Your task to perform on an android device: uninstall "Google Keep" Image 0: 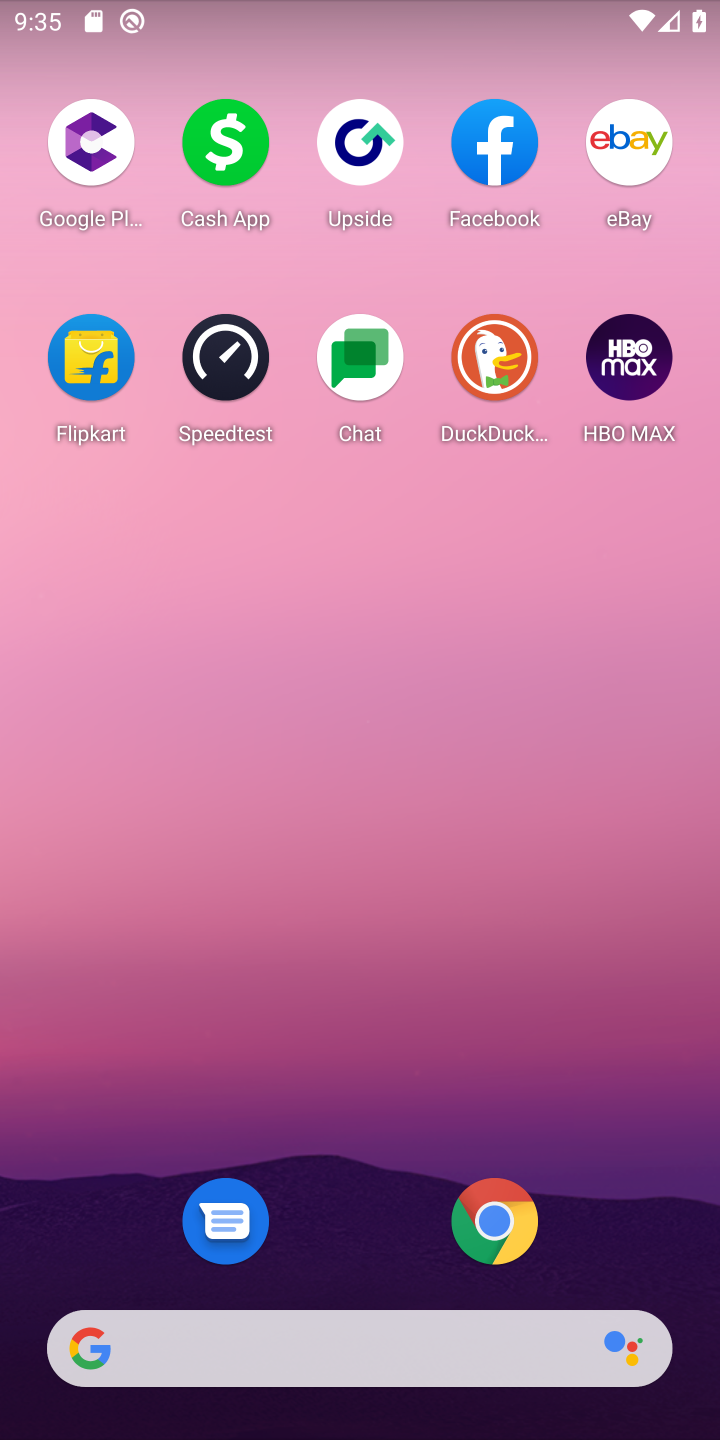
Step 0: drag from (368, 956) to (358, 472)
Your task to perform on an android device: uninstall "Google Keep" Image 1: 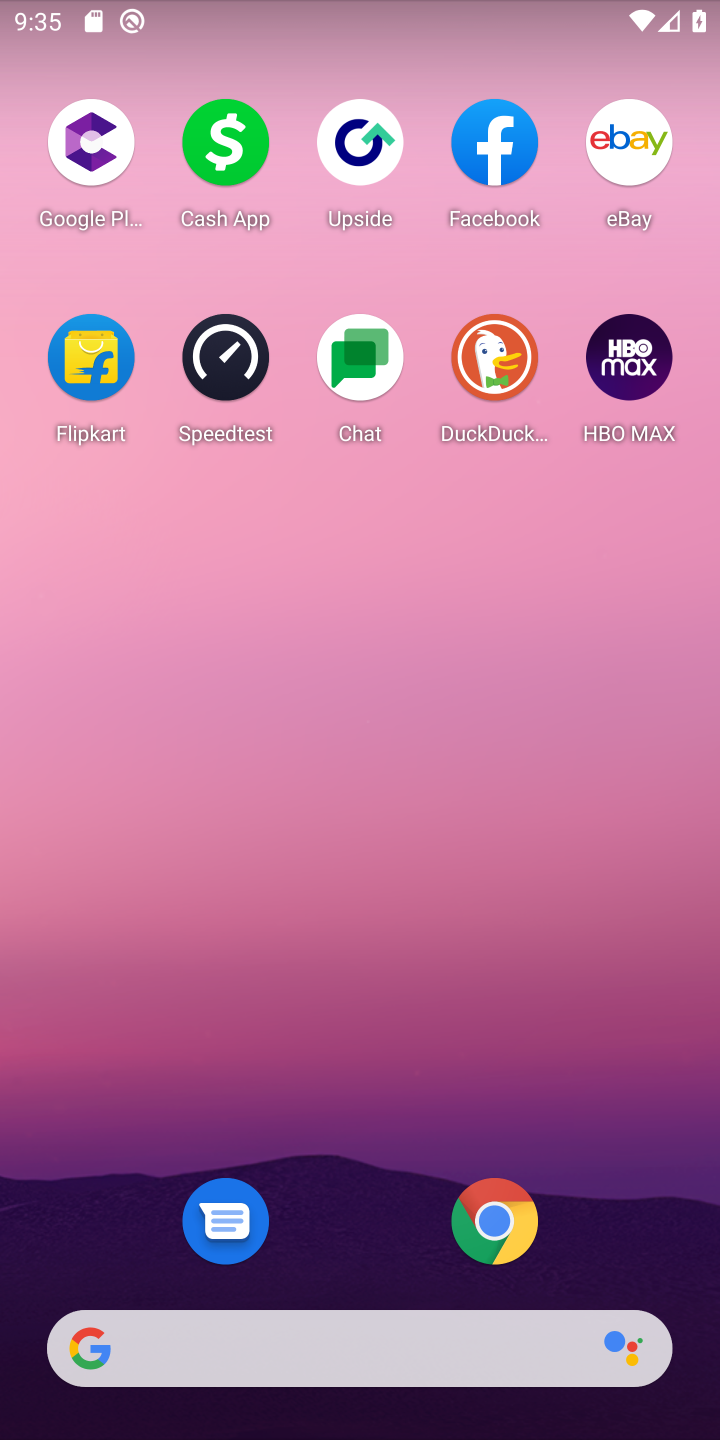
Step 1: drag from (348, 1014) to (350, 11)
Your task to perform on an android device: uninstall "Google Keep" Image 2: 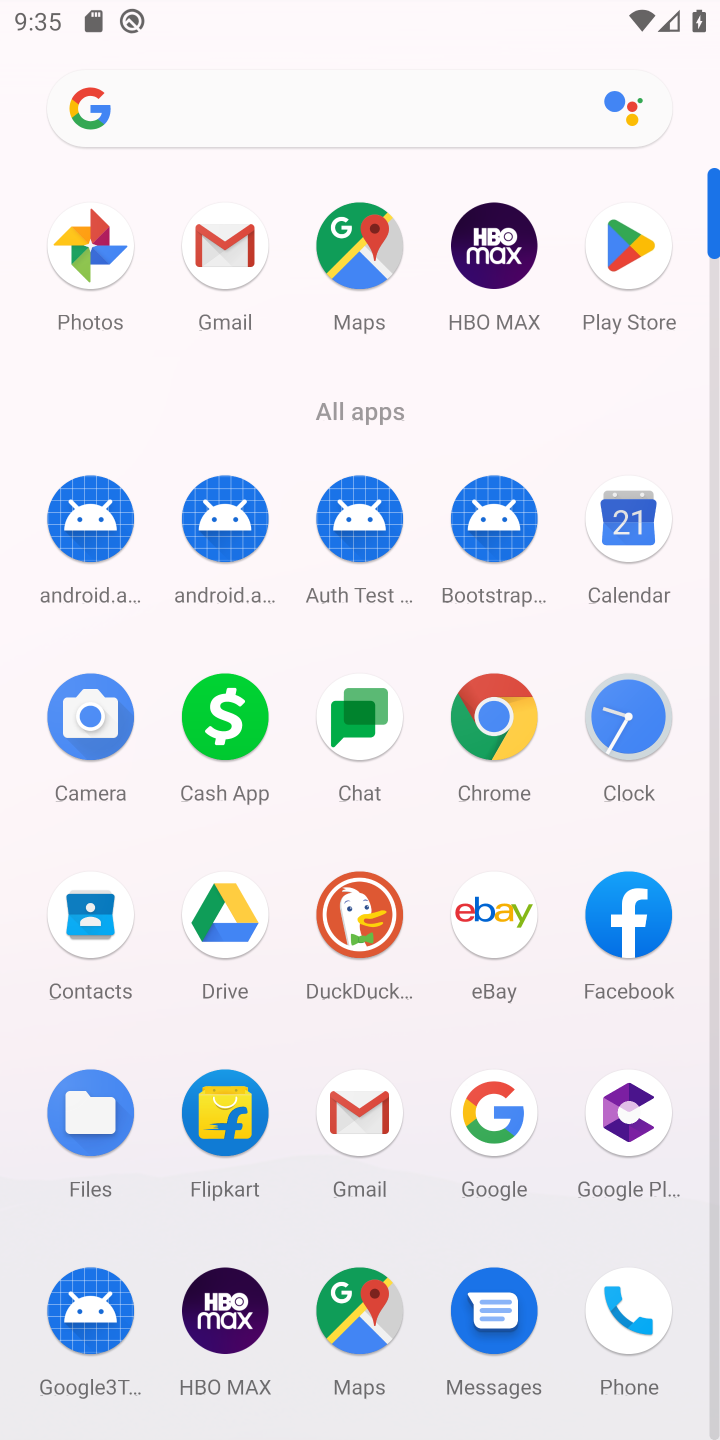
Step 2: click (616, 262)
Your task to perform on an android device: uninstall "Google Keep" Image 3: 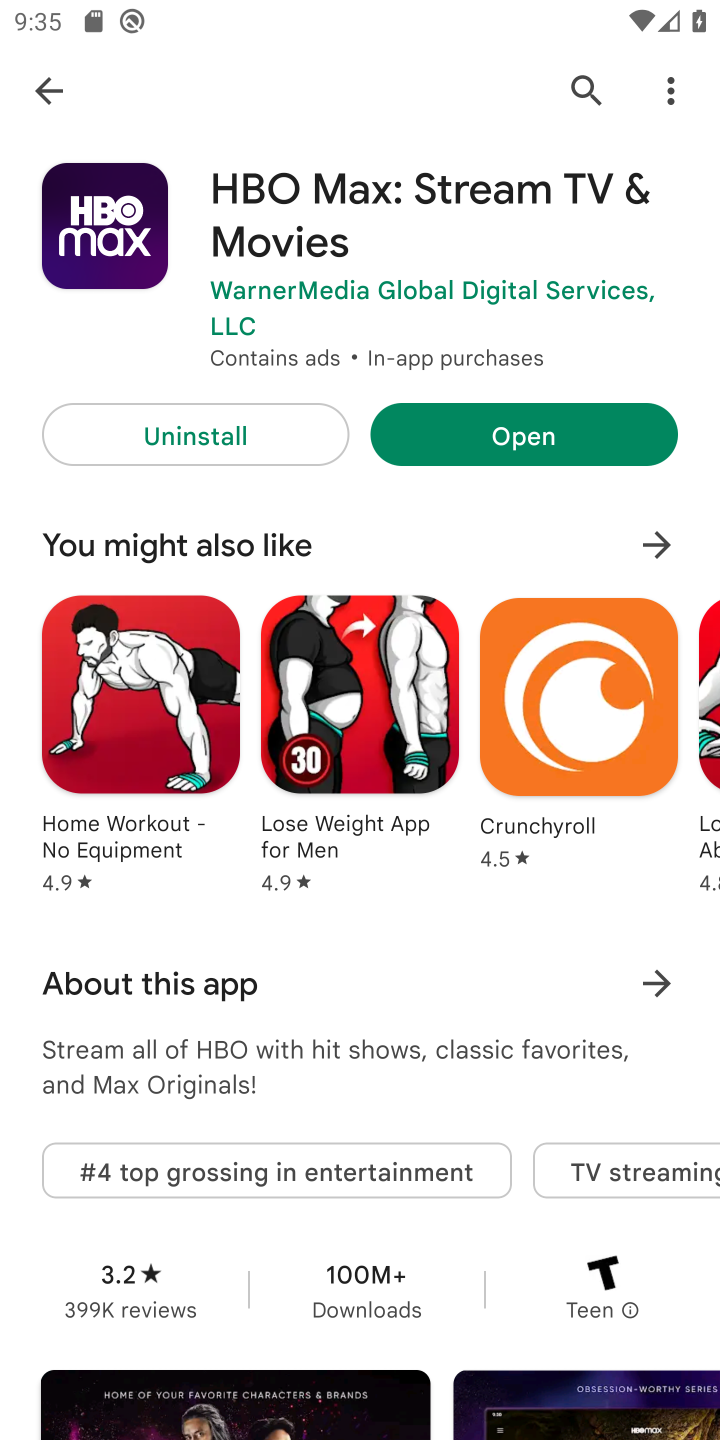
Step 3: click (597, 73)
Your task to perform on an android device: uninstall "Google Keep" Image 4: 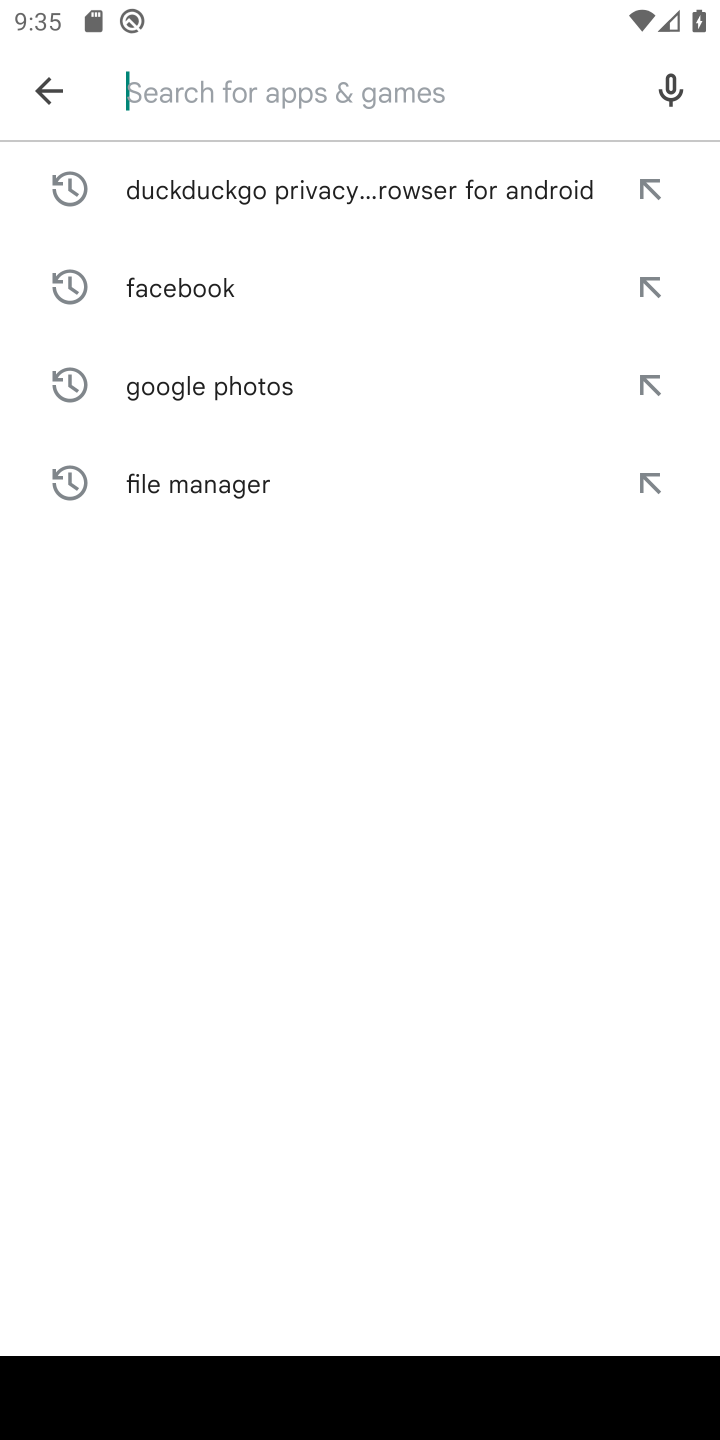
Step 4: type "Google Keep"
Your task to perform on an android device: uninstall "Google Keep" Image 5: 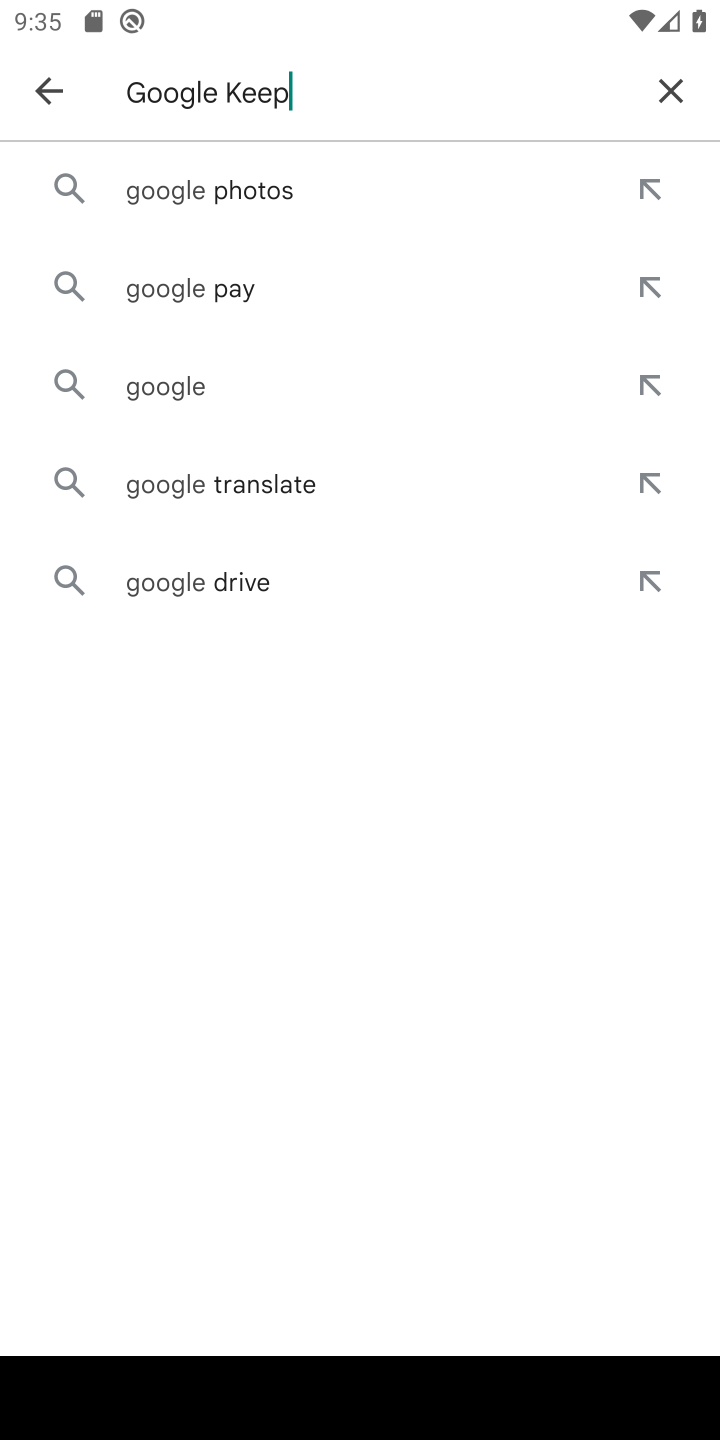
Step 5: type ""
Your task to perform on an android device: uninstall "Google Keep" Image 6: 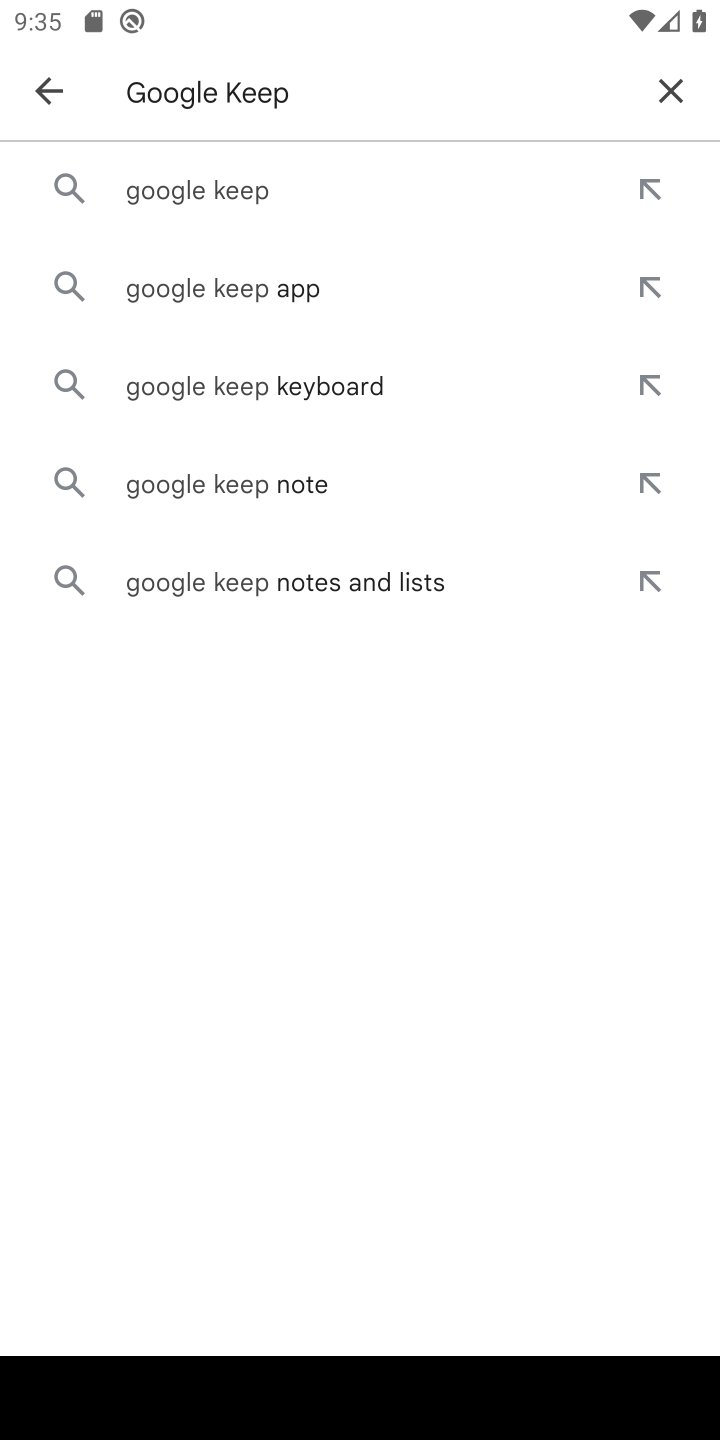
Step 6: click (250, 219)
Your task to perform on an android device: uninstall "Google Keep" Image 7: 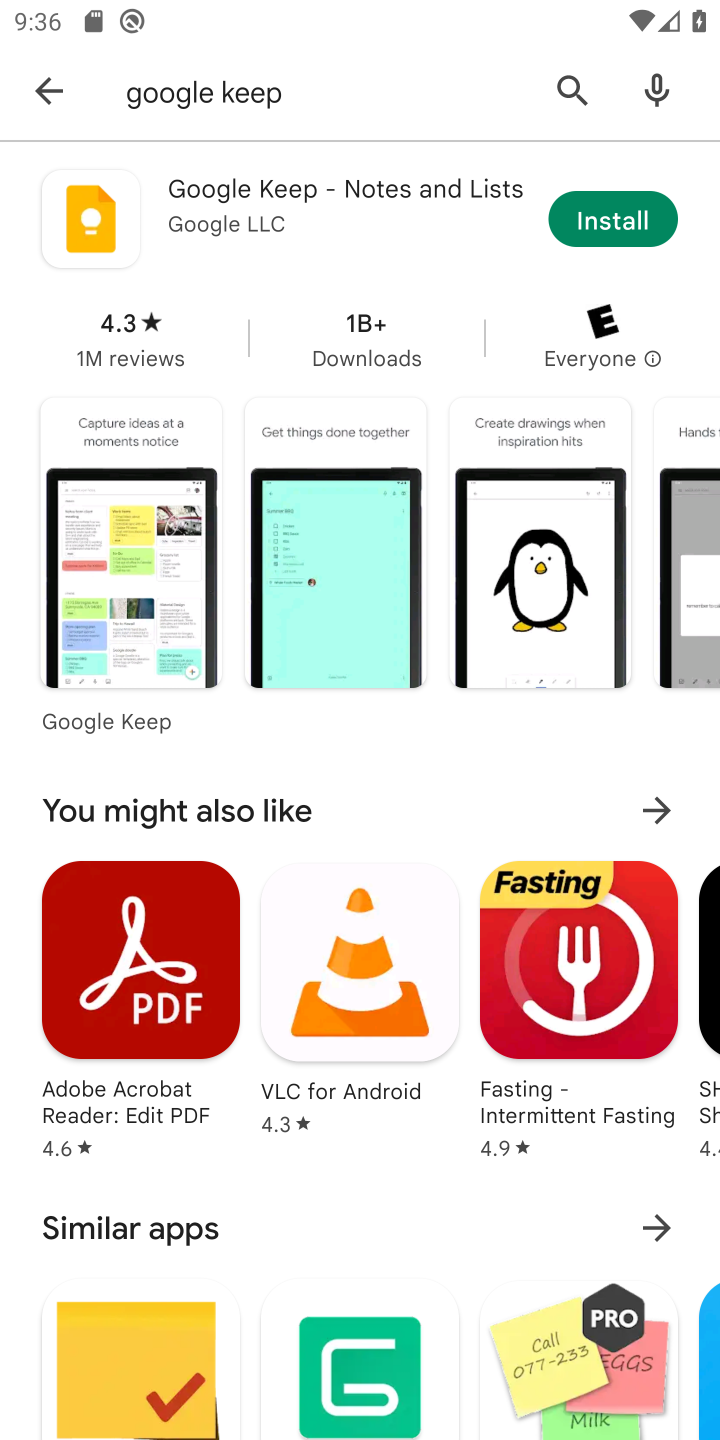
Step 7: task complete